Your task to perform on an android device: turn on the 12-hour format for clock Image 0: 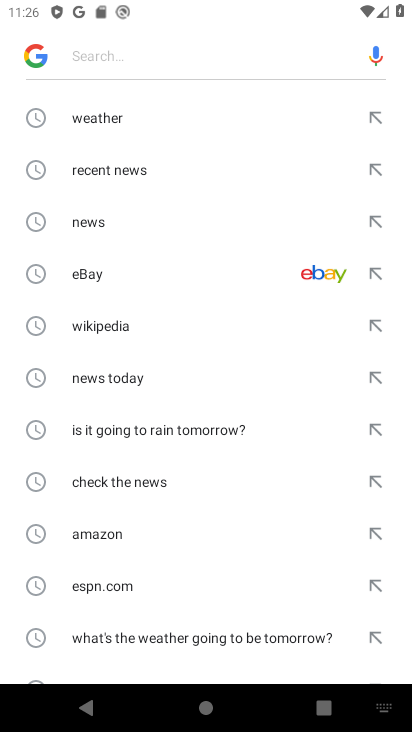
Step 0: press home button
Your task to perform on an android device: turn on the 12-hour format for clock Image 1: 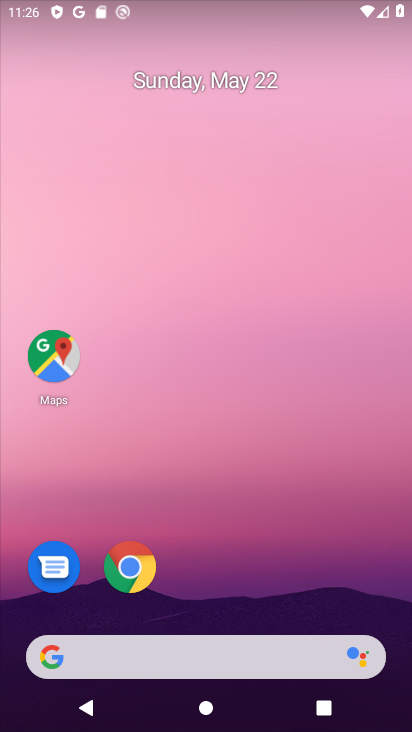
Step 1: drag from (205, 601) to (292, 18)
Your task to perform on an android device: turn on the 12-hour format for clock Image 2: 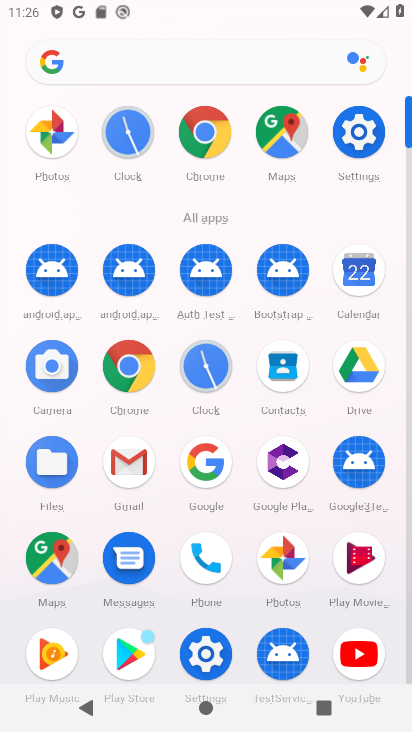
Step 2: drag from (287, 191) to (333, 0)
Your task to perform on an android device: turn on the 12-hour format for clock Image 3: 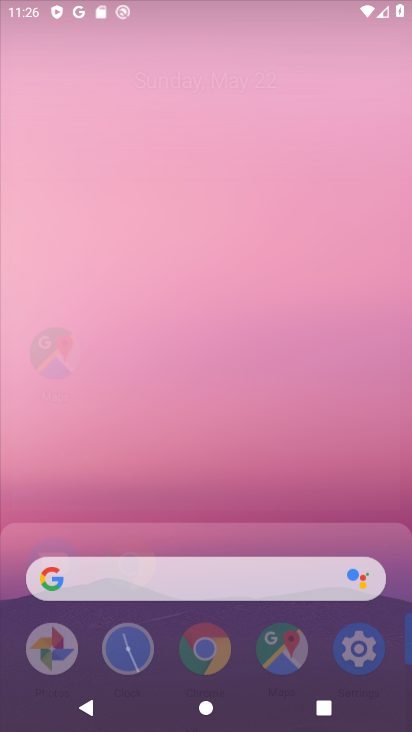
Step 3: click (362, 130)
Your task to perform on an android device: turn on the 12-hour format for clock Image 4: 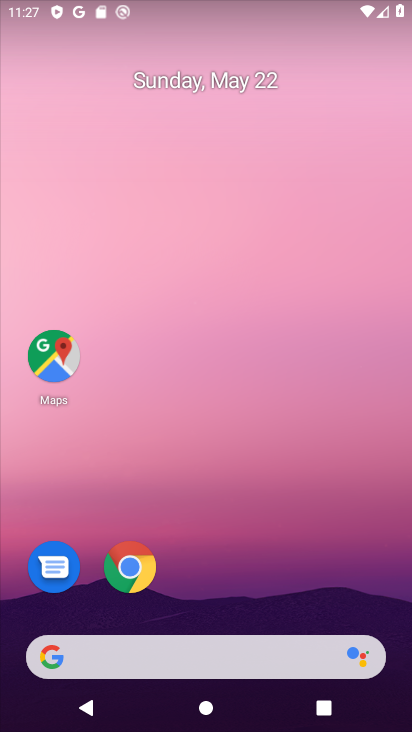
Step 4: click (206, 625)
Your task to perform on an android device: turn on the 12-hour format for clock Image 5: 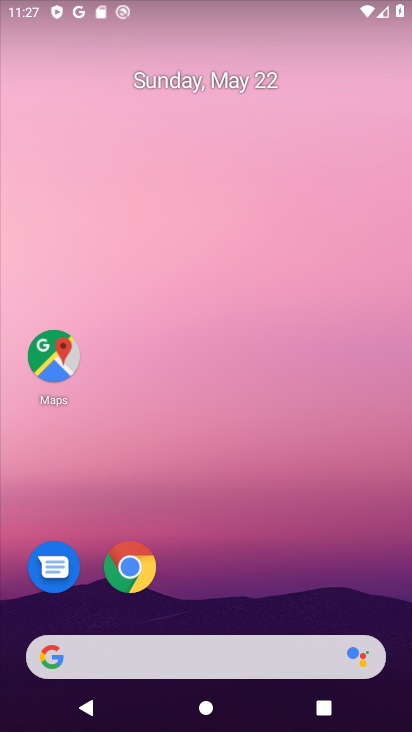
Step 5: drag from (257, 9) to (337, 36)
Your task to perform on an android device: turn on the 12-hour format for clock Image 6: 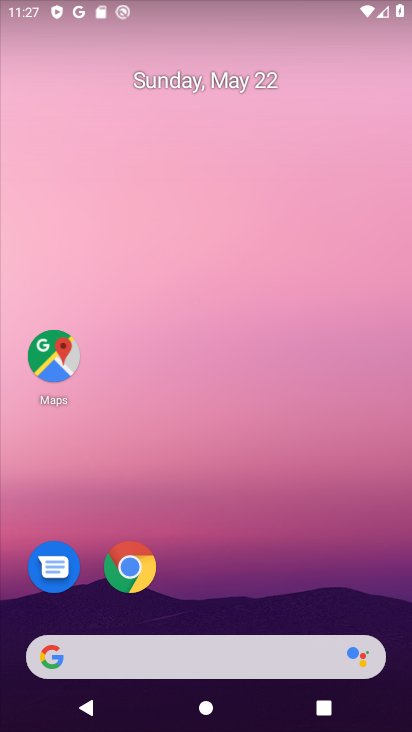
Step 6: drag from (199, 632) to (285, 6)
Your task to perform on an android device: turn on the 12-hour format for clock Image 7: 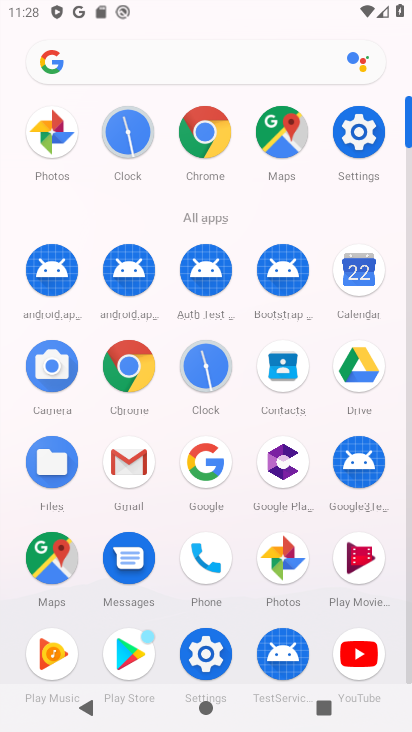
Step 7: click (140, 127)
Your task to perform on an android device: turn on the 12-hour format for clock Image 8: 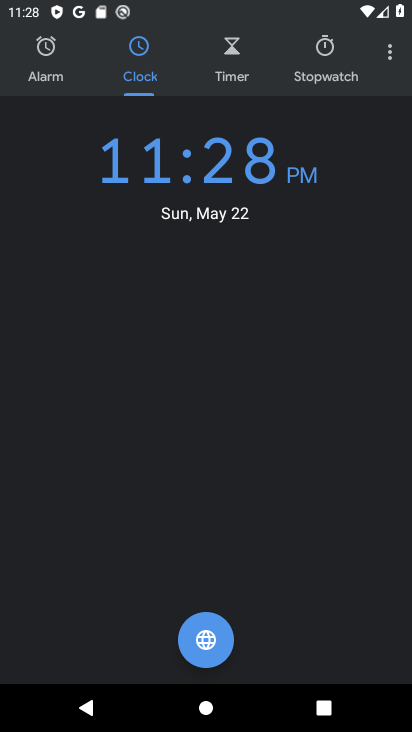
Step 8: click (381, 39)
Your task to perform on an android device: turn on the 12-hour format for clock Image 9: 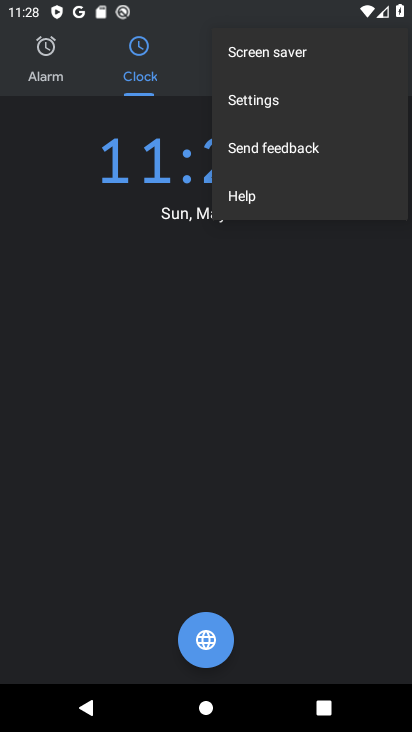
Step 9: click (347, 98)
Your task to perform on an android device: turn on the 12-hour format for clock Image 10: 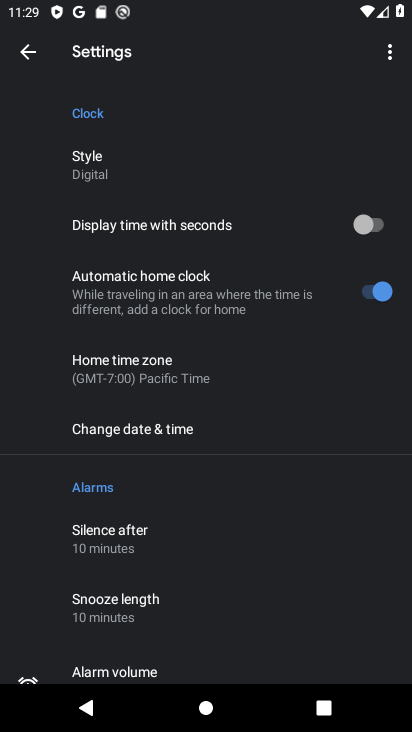
Step 10: task complete